Your task to perform on an android device: Show me popular games on the Play Store Image 0: 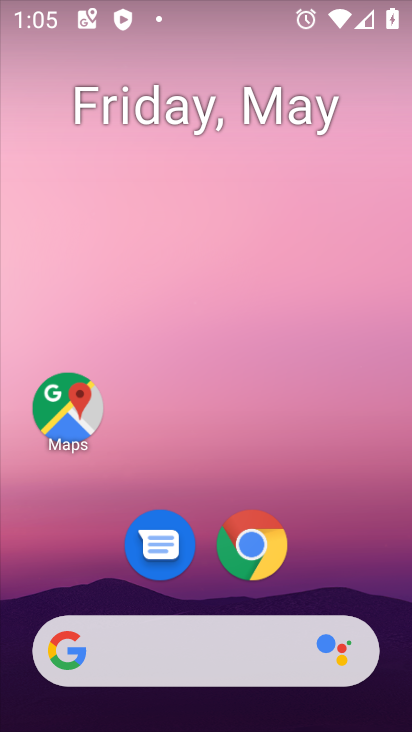
Step 0: drag from (326, 571) to (318, 102)
Your task to perform on an android device: Show me popular games on the Play Store Image 1: 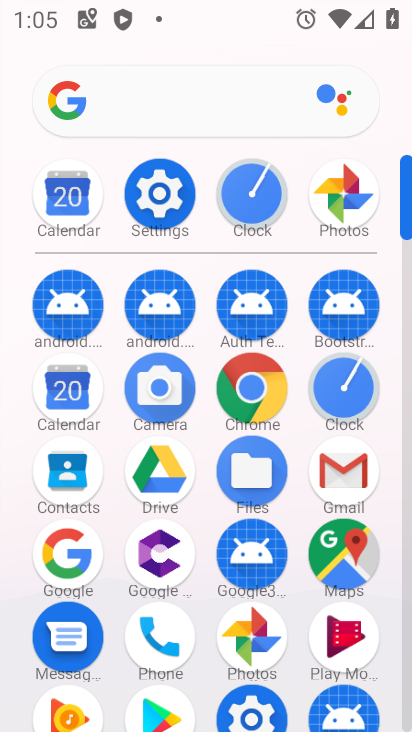
Step 1: click (167, 699)
Your task to perform on an android device: Show me popular games on the Play Store Image 2: 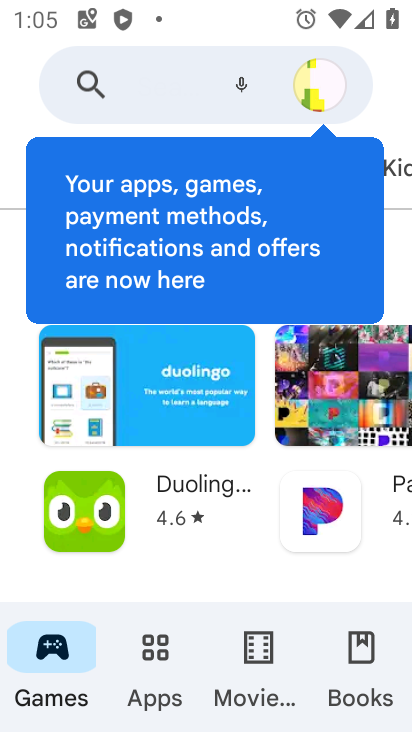
Step 2: click (222, 88)
Your task to perform on an android device: Show me popular games on the Play Store Image 3: 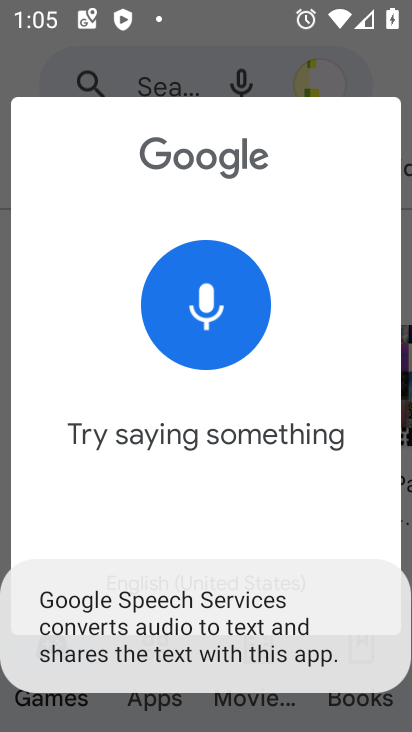
Step 3: click (165, 74)
Your task to perform on an android device: Show me popular games on the Play Store Image 4: 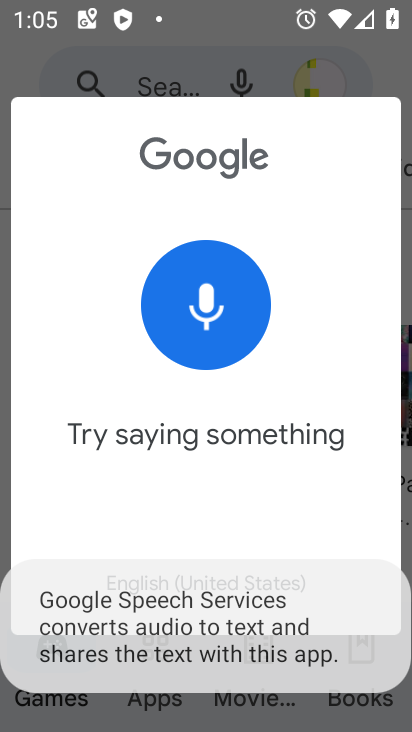
Step 4: click (165, 74)
Your task to perform on an android device: Show me popular games on the Play Store Image 5: 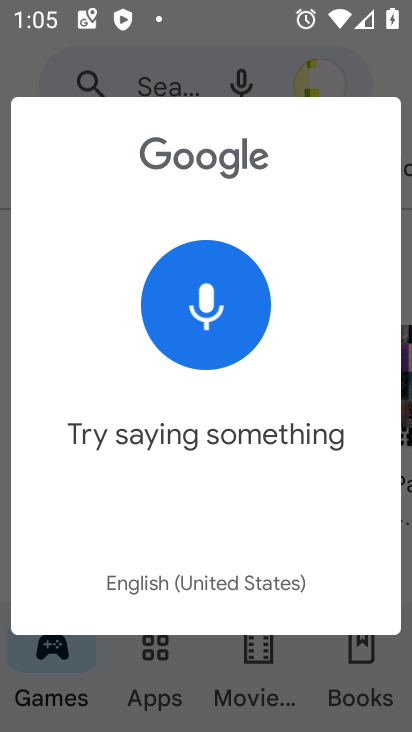
Step 5: click (165, 74)
Your task to perform on an android device: Show me popular games on the Play Store Image 6: 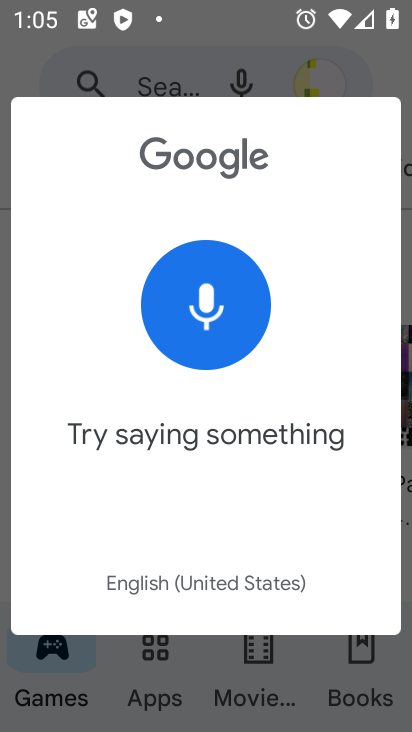
Step 6: click (165, 74)
Your task to perform on an android device: Show me popular games on the Play Store Image 7: 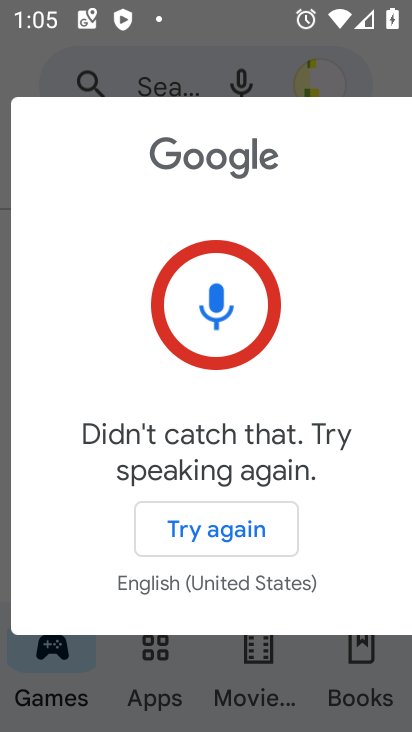
Step 7: click (165, 74)
Your task to perform on an android device: Show me popular games on the Play Store Image 8: 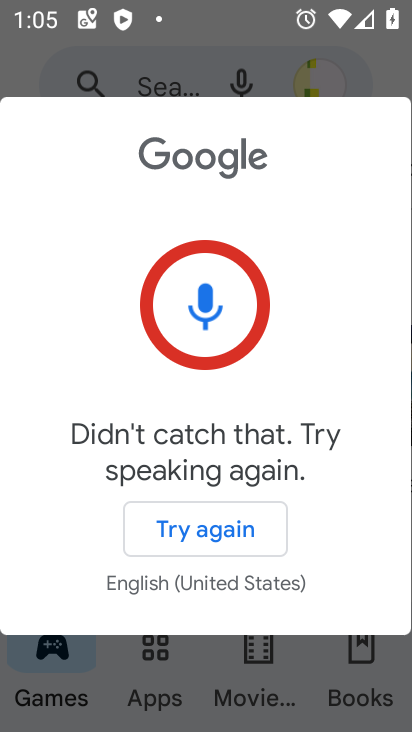
Step 8: click (165, 74)
Your task to perform on an android device: Show me popular games on the Play Store Image 9: 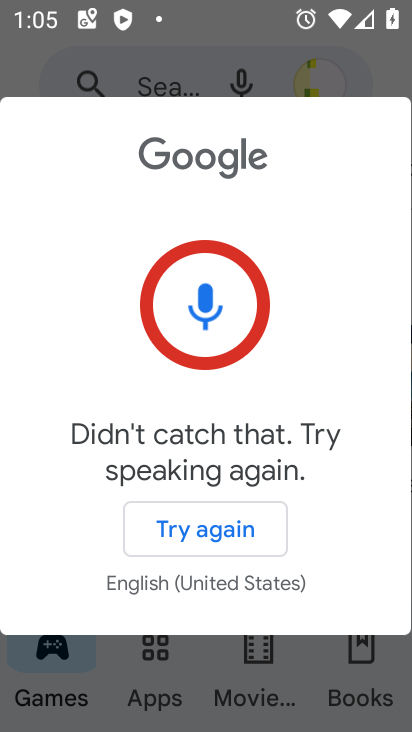
Step 9: click (182, 662)
Your task to perform on an android device: Show me popular games on the Play Store Image 10: 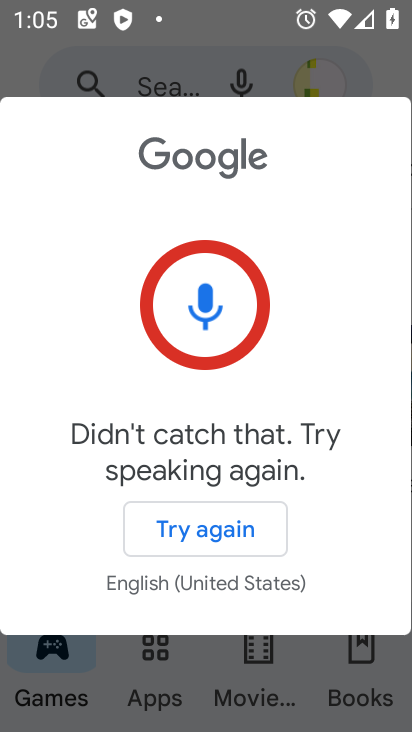
Step 10: press back button
Your task to perform on an android device: Show me popular games on the Play Store Image 11: 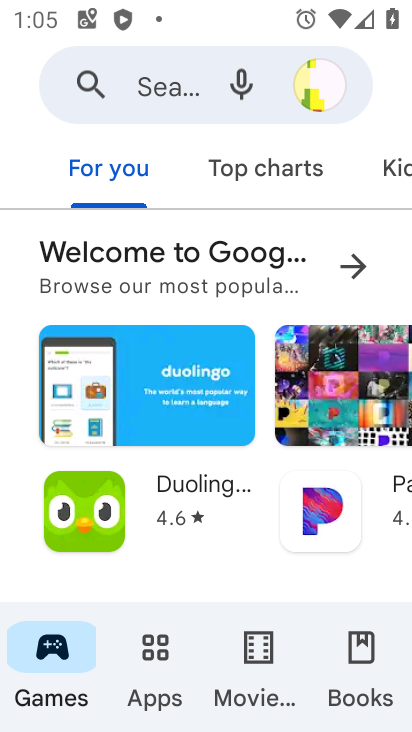
Step 11: click (151, 80)
Your task to perform on an android device: Show me popular games on the Play Store Image 12: 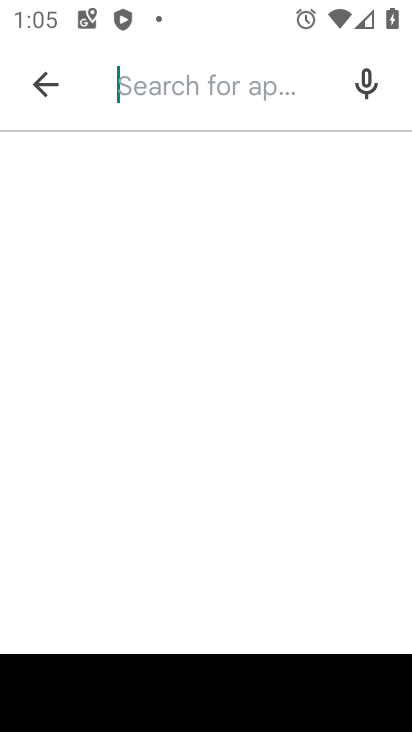
Step 12: type "popular games"
Your task to perform on an android device: Show me popular games on the Play Store Image 13: 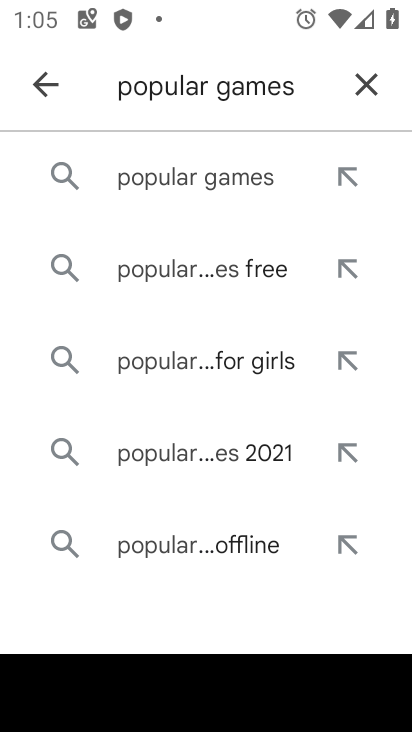
Step 13: click (202, 177)
Your task to perform on an android device: Show me popular games on the Play Store Image 14: 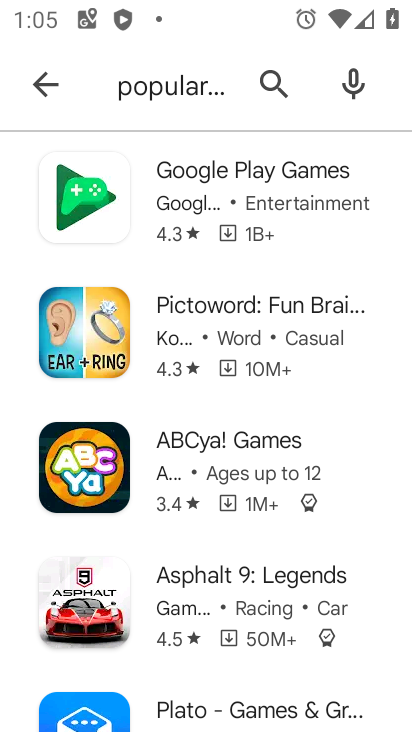
Step 14: task complete